Your task to perform on an android device: set the timer Image 0: 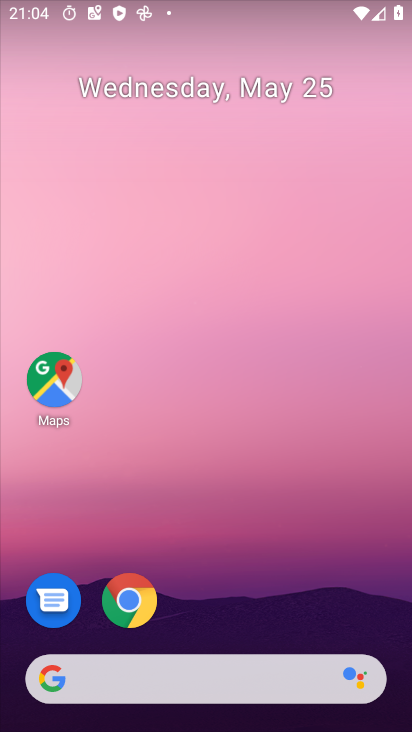
Step 0: drag from (341, 649) to (308, 149)
Your task to perform on an android device: set the timer Image 1: 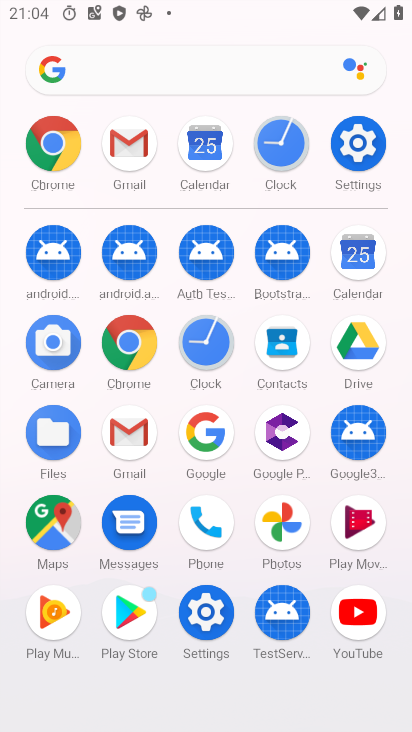
Step 1: click (191, 350)
Your task to perform on an android device: set the timer Image 2: 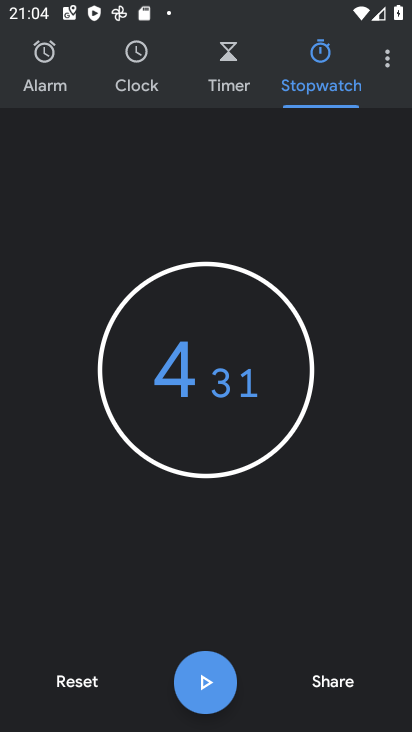
Step 2: click (227, 72)
Your task to perform on an android device: set the timer Image 3: 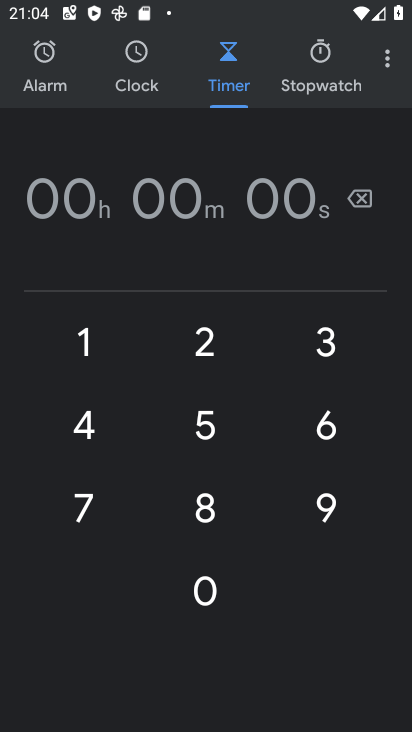
Step 3: click (81, 349)
Your task to perform on an android device: set the timer Image 4: 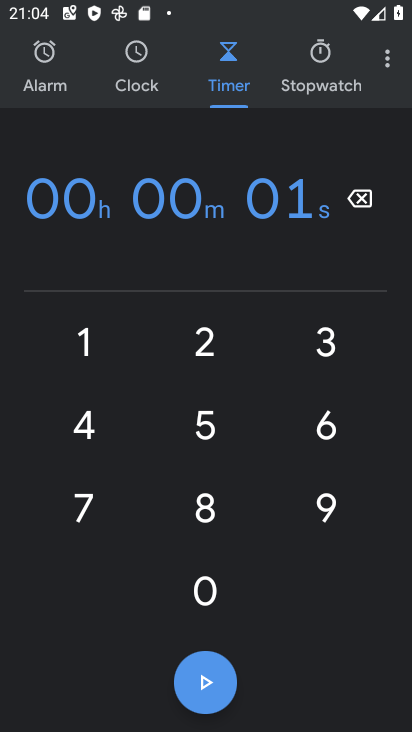
Step 4: click (197, 434)
Your task to perform on an android device: set the timer Image 5: 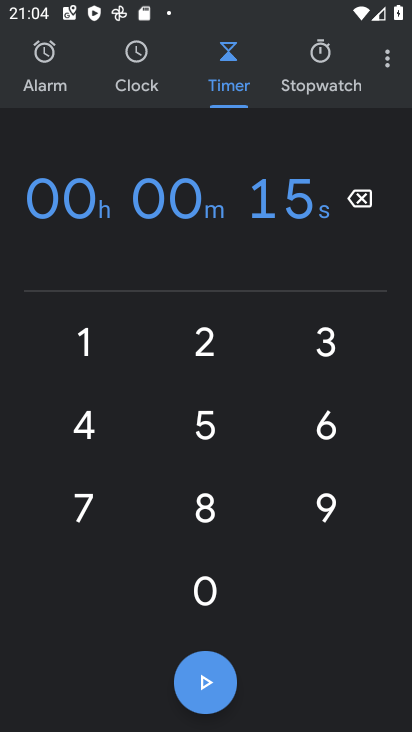
Step 5: click (210, 688)
Your task to perform on an android device: set the timer Image 6: 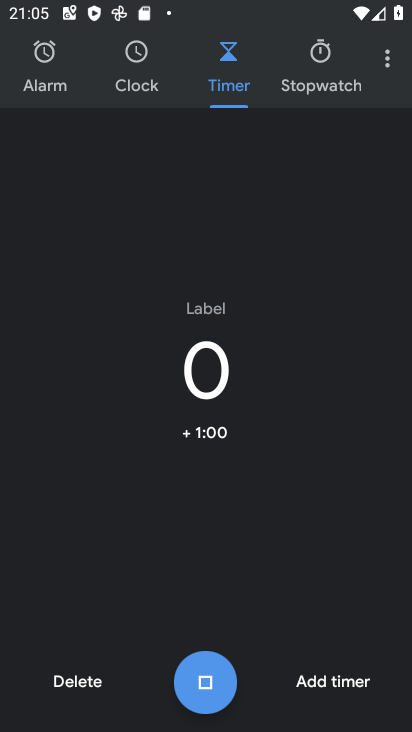
Step 6: click (217, 682)
Your task to perform on an android device: set the timer Image 7: 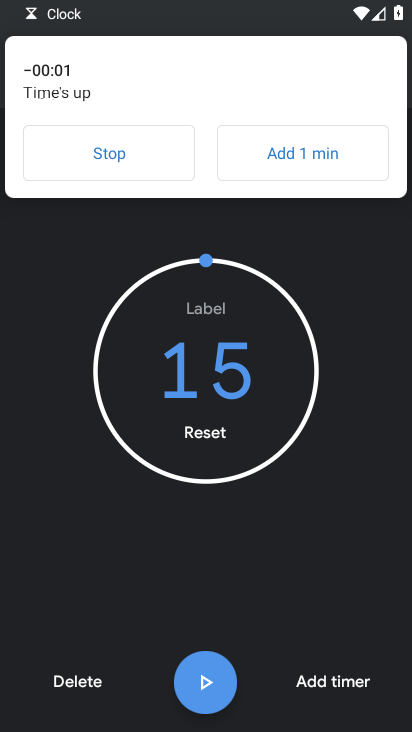
Step 7: click (165, 155)
Your task to perform on an android device: set the timer Image 8: 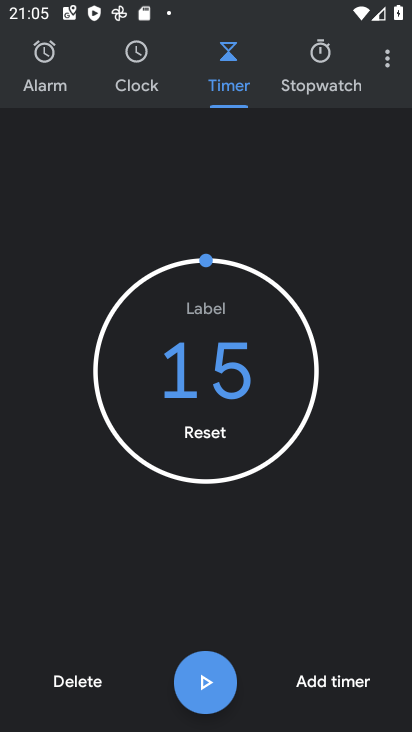
Step 8: task complete